Your task to perform on an android device: uninstall "Google News" Image 0: 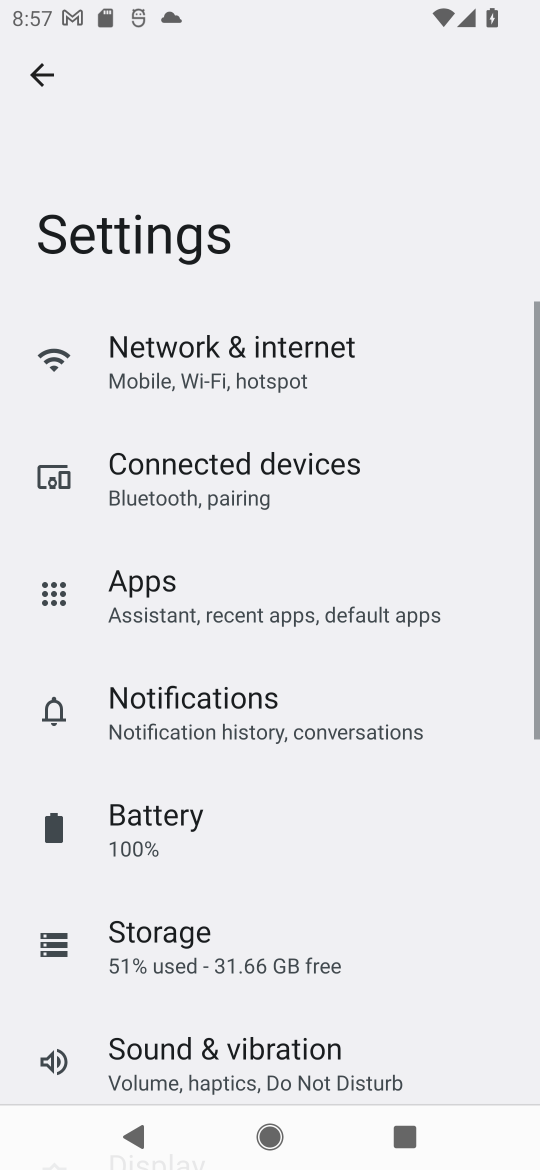
Step 0: press home button
Your task to perform on an android device: uninstall "Google News" Image 1: 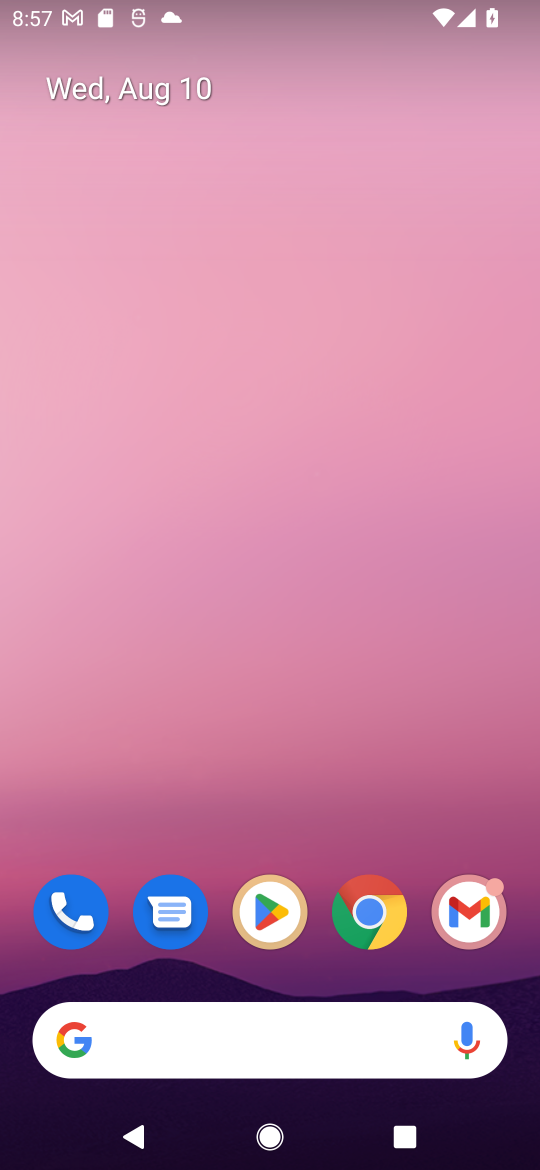
Step 1: drag from (427, 940) to (290, 27)
Your task to perform on an android device: uninstall "Google News" Image 2: 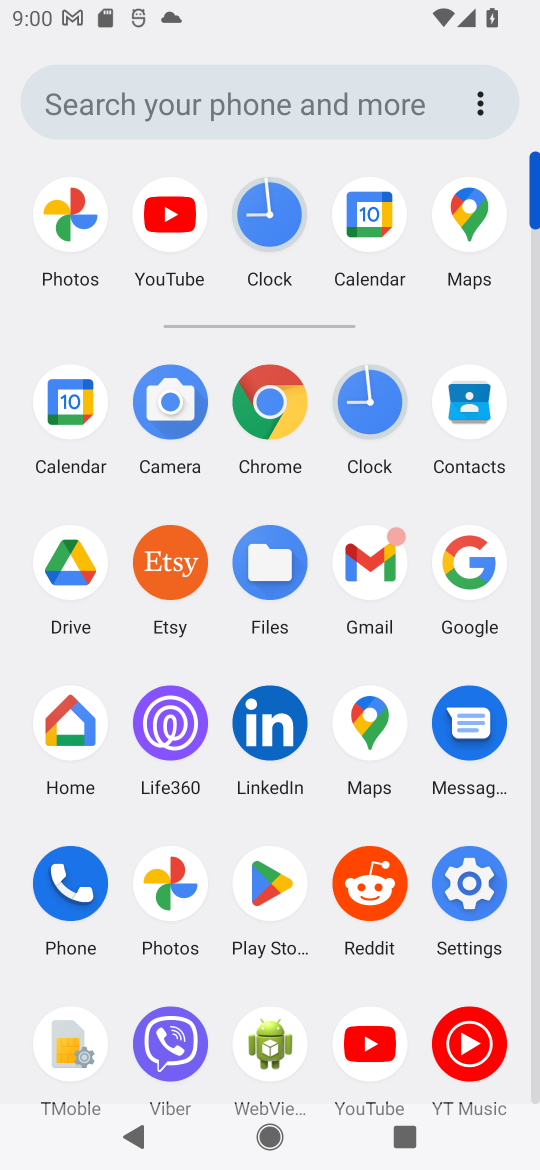
Step 2: click (247, 895)
Your task to perform on an android device: uninstall "Google News" Image 3: 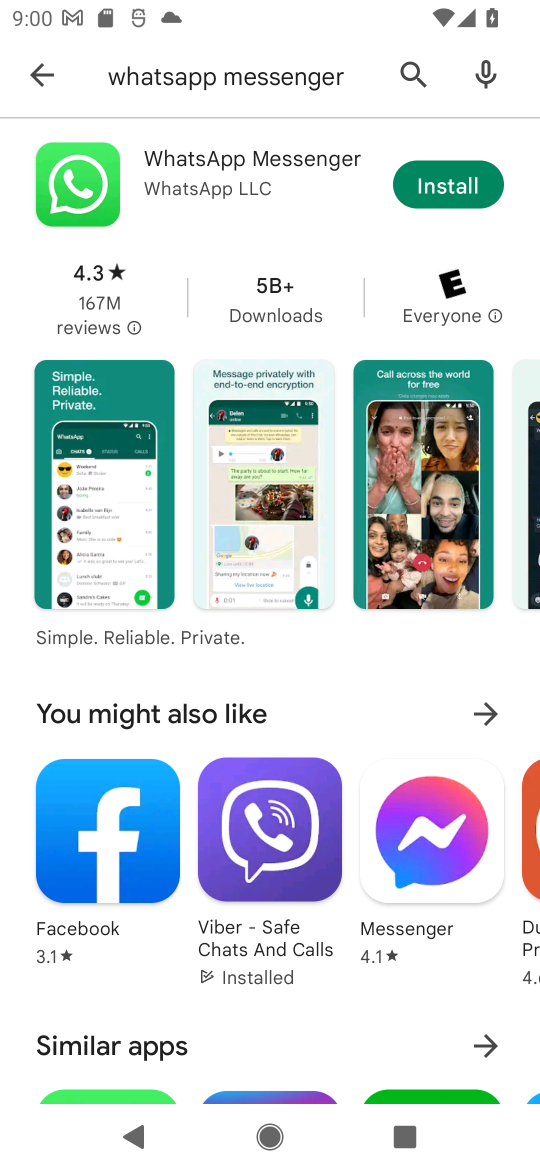
Step 3: press back button
Your task to perform on an android device: uninstall "Google News" Image 4: 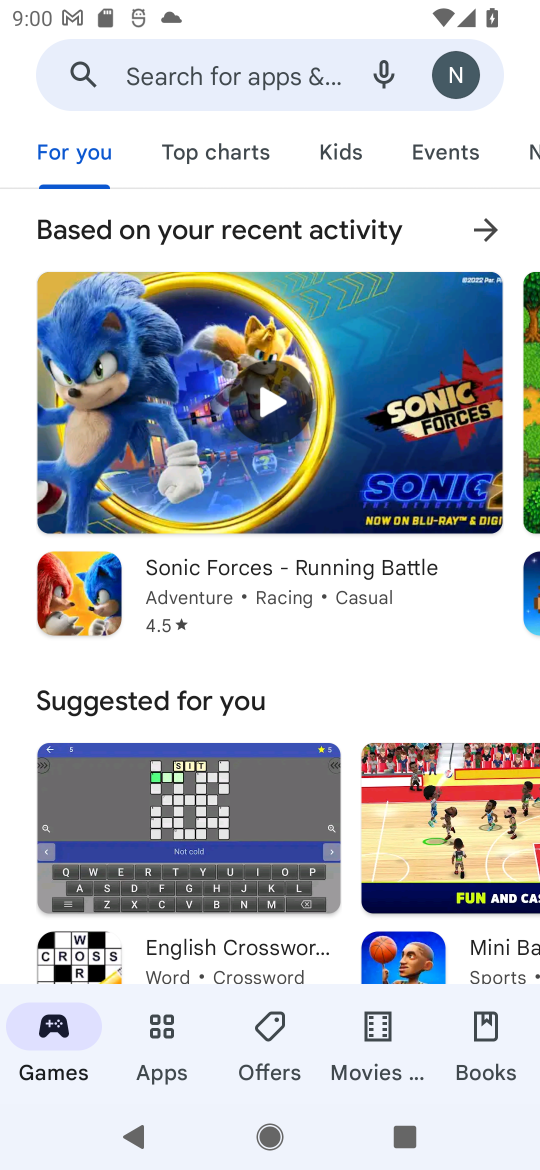
Step 4: click (270, 68)
Your task to perform on an android device: uninstall "Google News" Image 5: 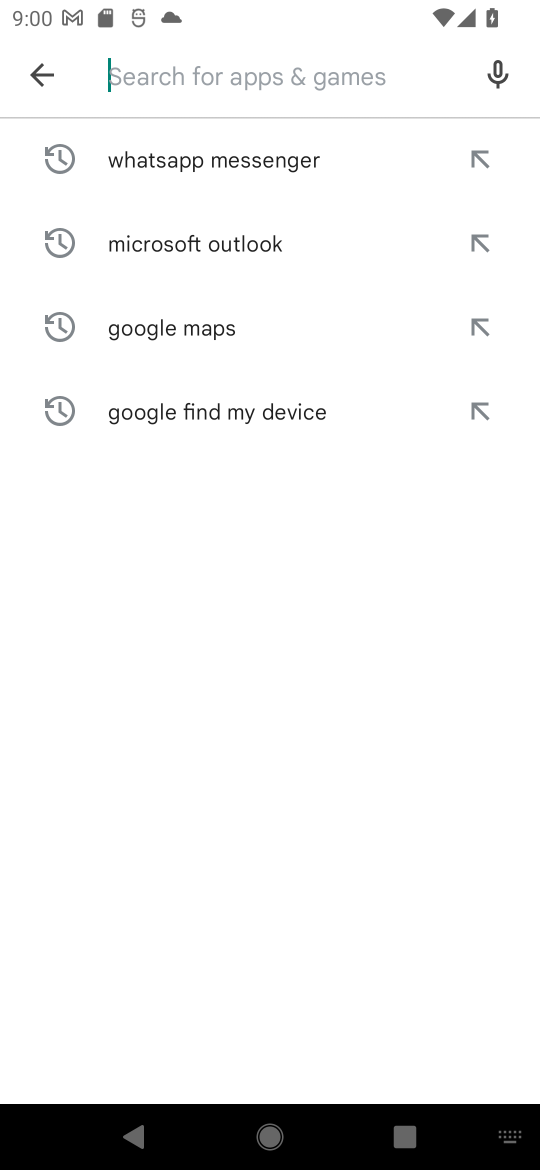
Step 5: type "Google News"
Your task to perform on an android device: uninstall "Google News" Image 6: 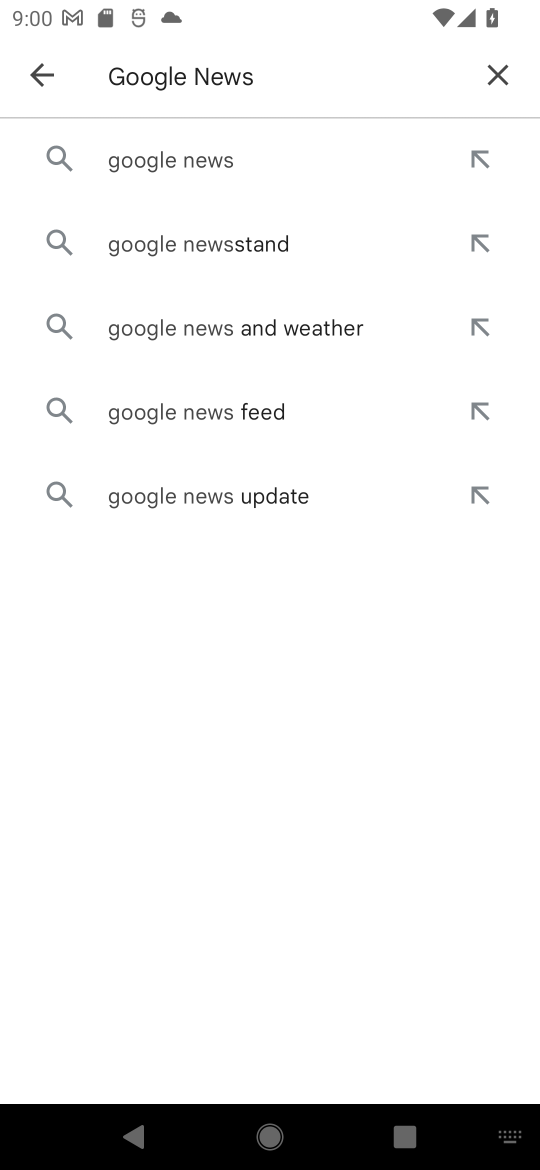
Step 6: click (235, 162)
Your task to perform on an android device: uninstall "Google News" Image 7: 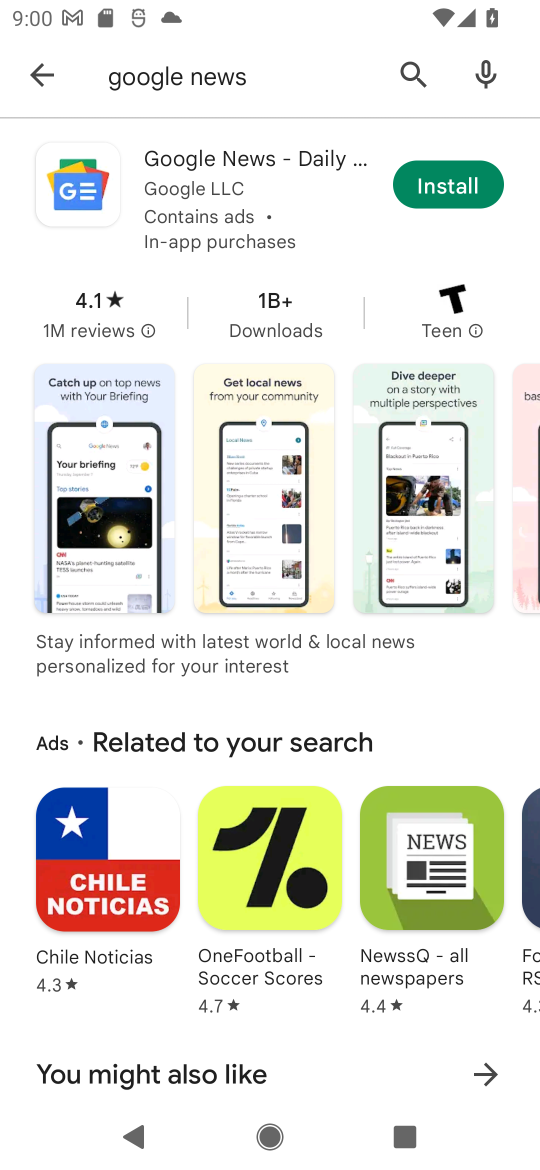
Step 7: task complete